Your task to perform on an android device: Do I have any events tomorrow? Image 0: 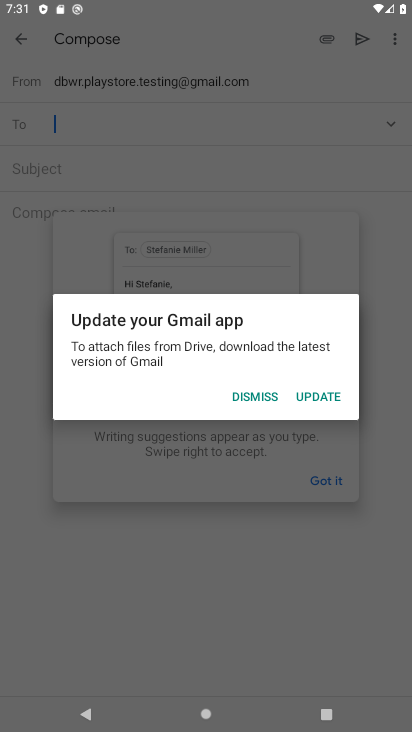
Step 0: press home button
Your task to perform on an android device: Do I have any events tomorrow? Image 1: 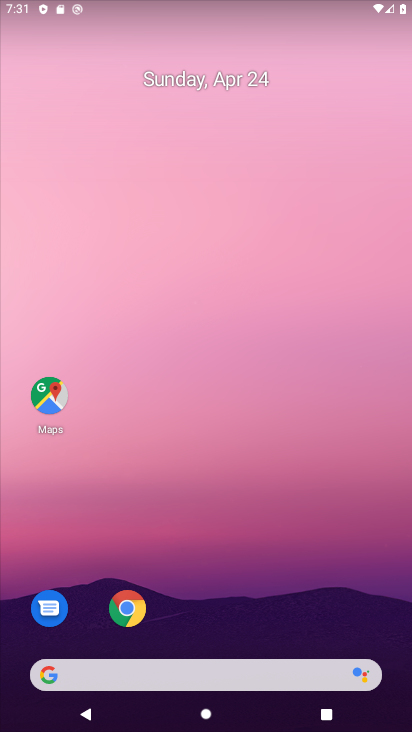
Step 1: drag from (300, 620) to (256, 74)
Your task to perform on an android device: Do I have any events tomorrow? Image 2: 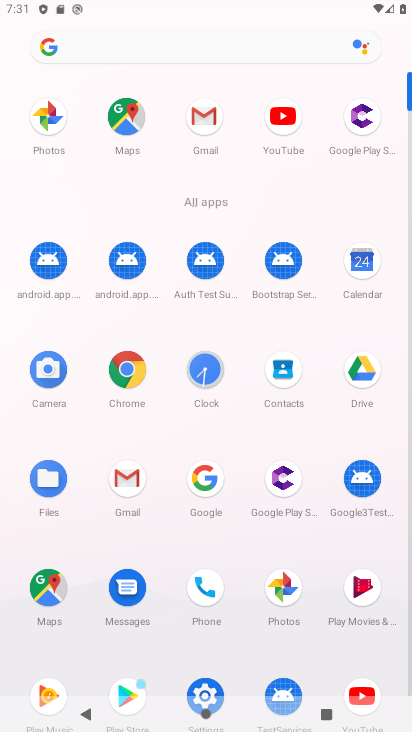
Step 2: click (377, 261)
Your task to perform on an android device: Do I have any events tomorrow? Image 3: 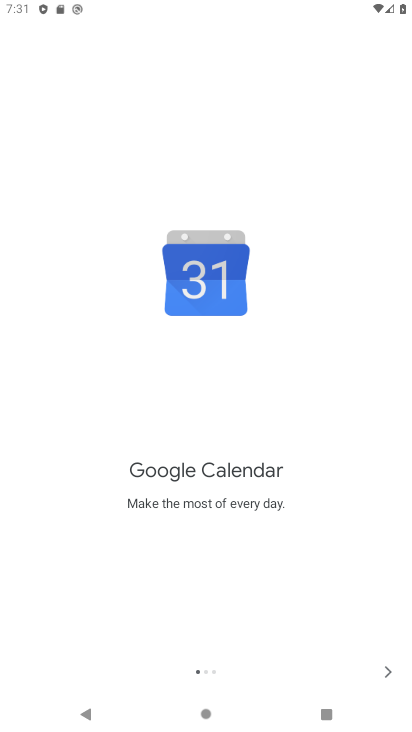
Step 3: click (397, 681)
Your task to perform on an android device: Do I have any events tomorrow? Image 4: 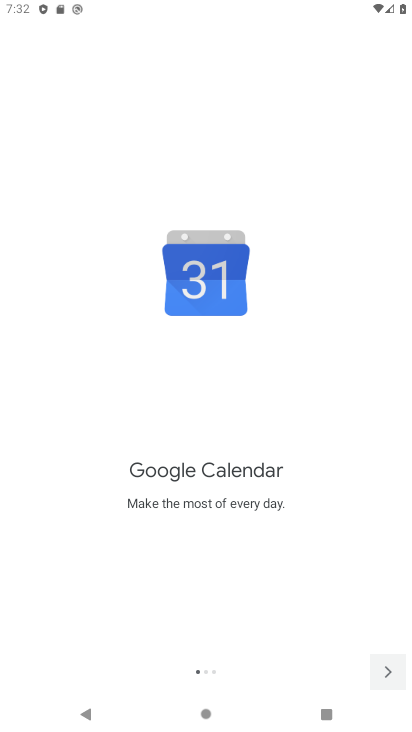
Step 4: click (397, 681)
Your task to perform on an android device: Do I have any events tomorrow? Image 5: 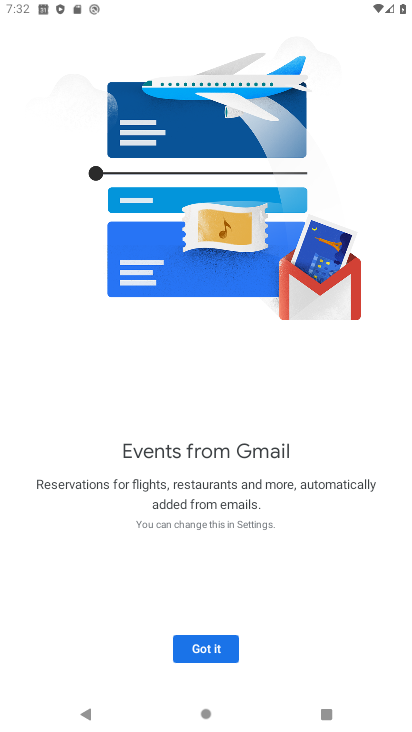
Step 5: click (234, 650)
Your task to perform on an android device: Do I have any events tomorrow? Image 6: 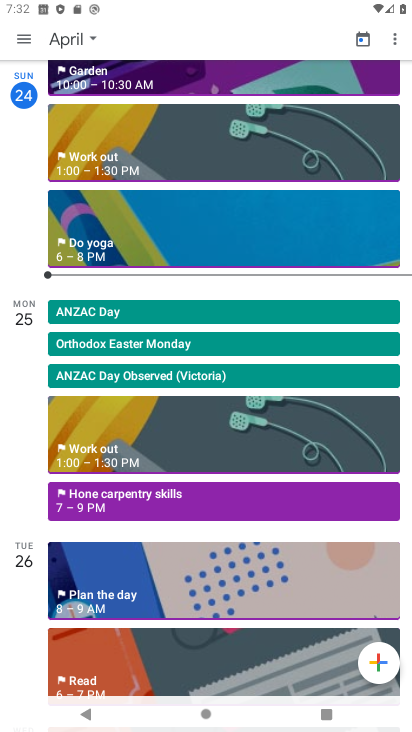
Step 6: task complete